Your task to perform on an android device: Open Amazon Image 0: 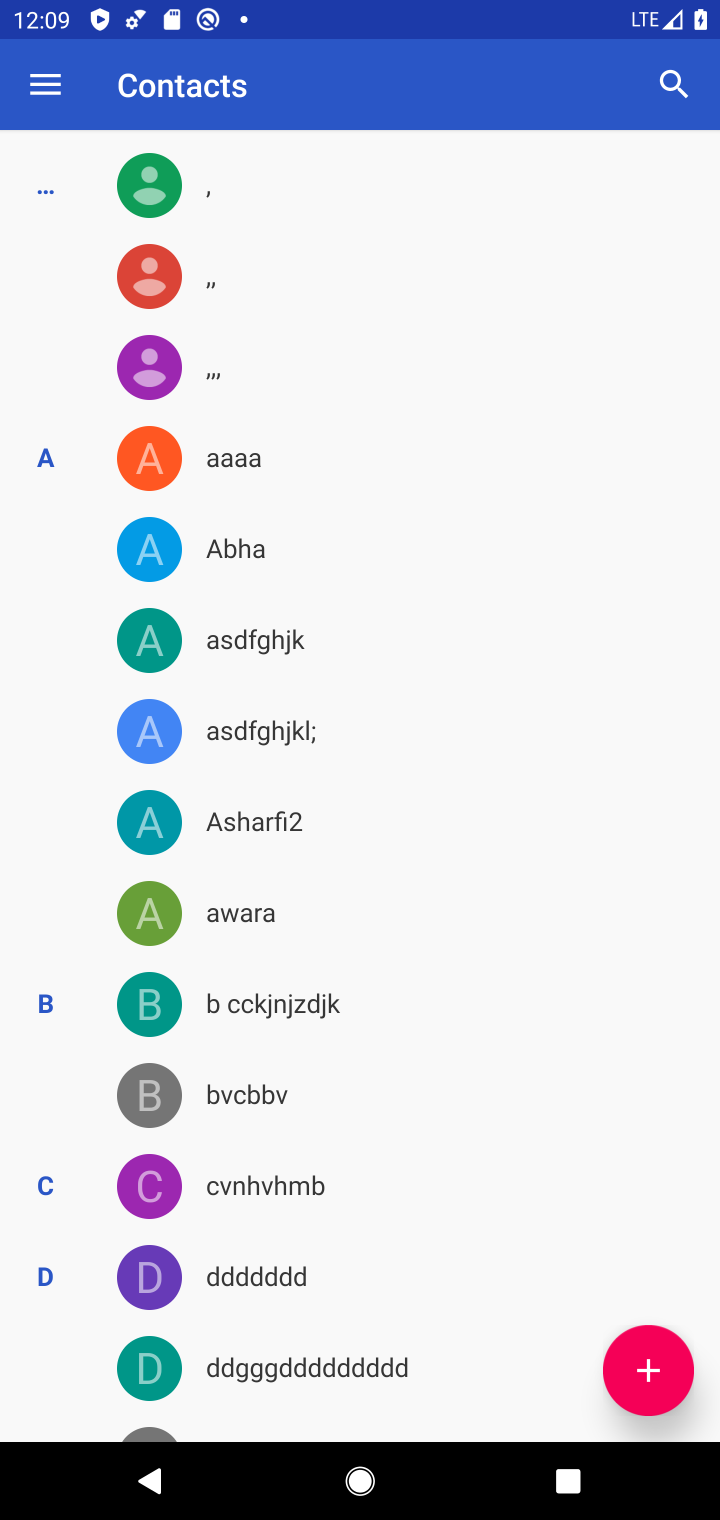
Step 0: press home button
Your task to perform on an android device: Open Amazon Image 1: 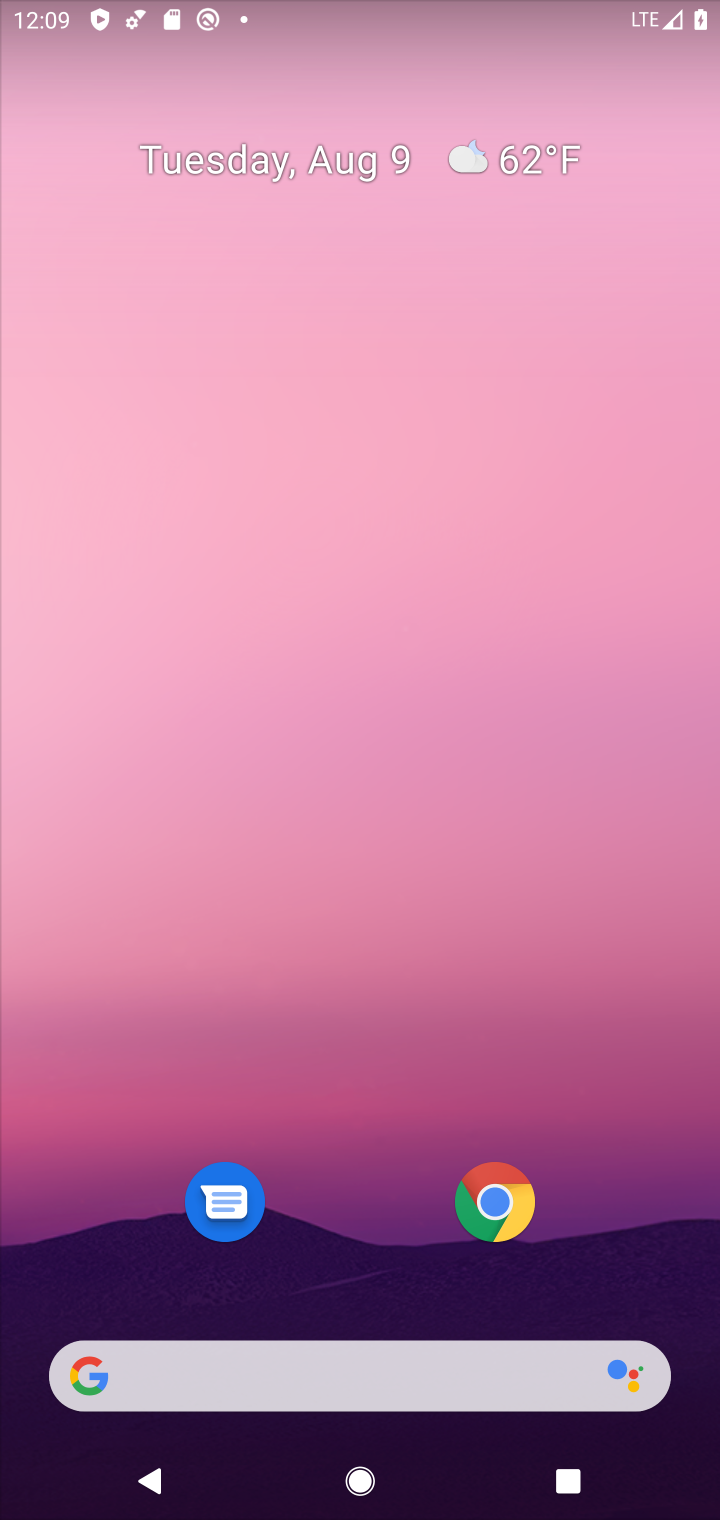
Step 1: drag from (247, 682) to (210, 450)
Your task to perform on an android device: Open Amazon Image 2: 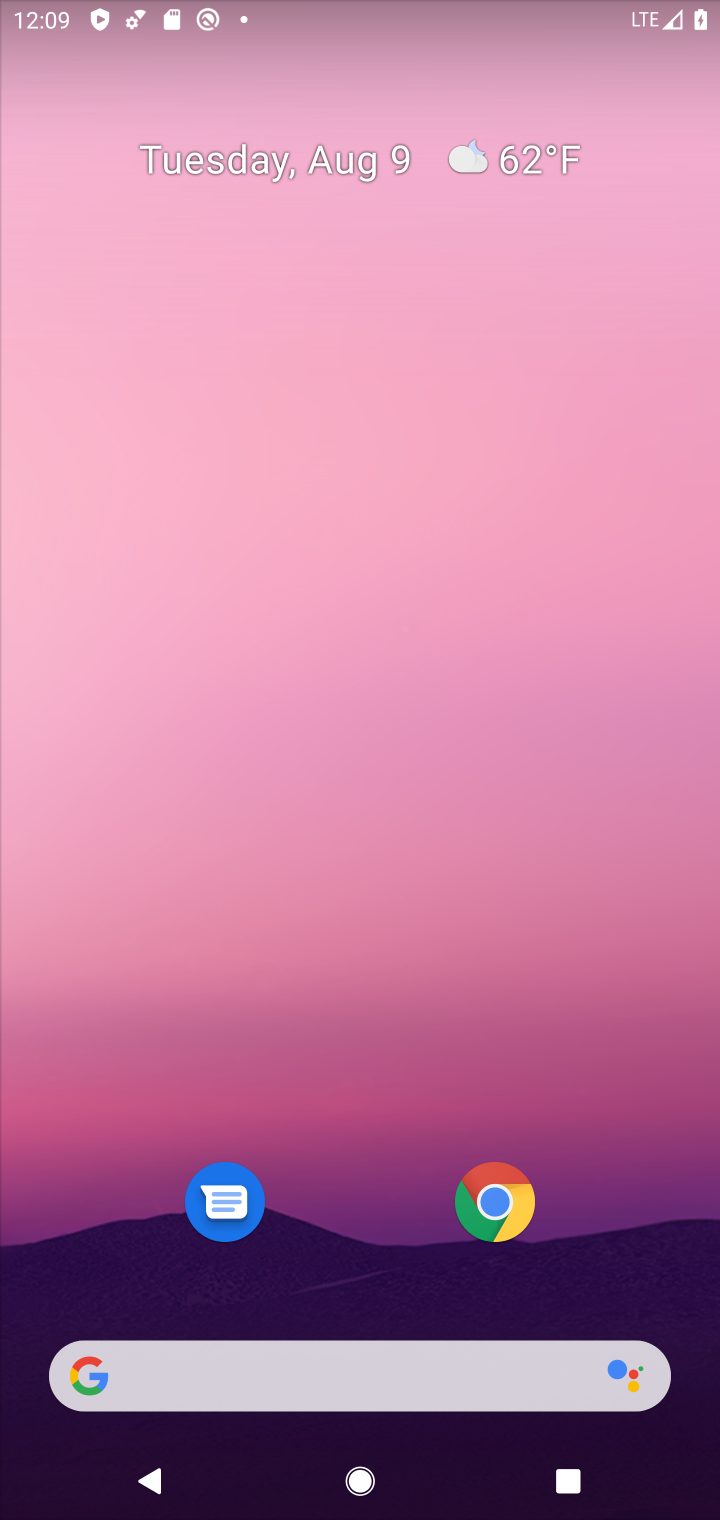
Step 2: drag from (208, 502) to (188, 397)
Your task to perform on an android device: Open Amazon Image 3: 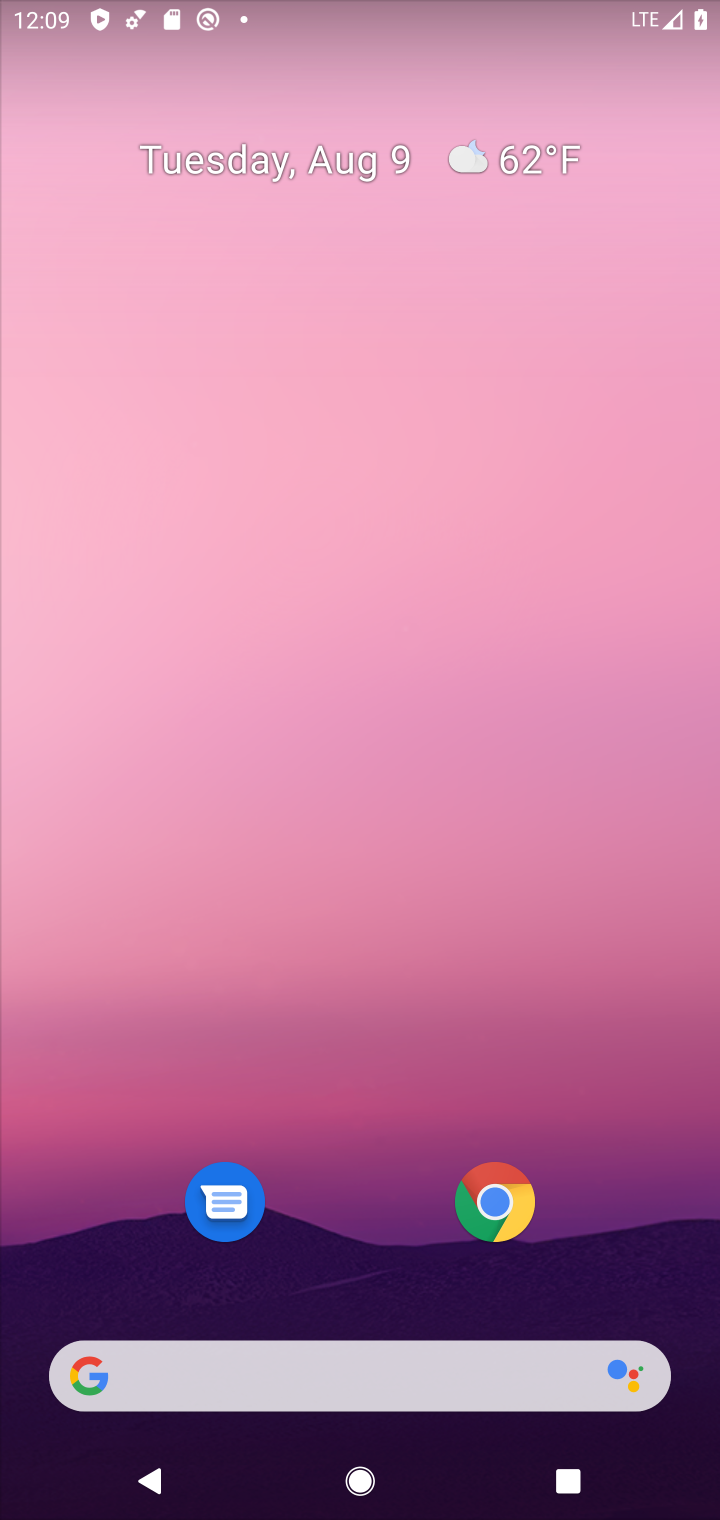
Step 3: click (496, 1212)
Your task to perform on an android device: Open Amazon Image 4: 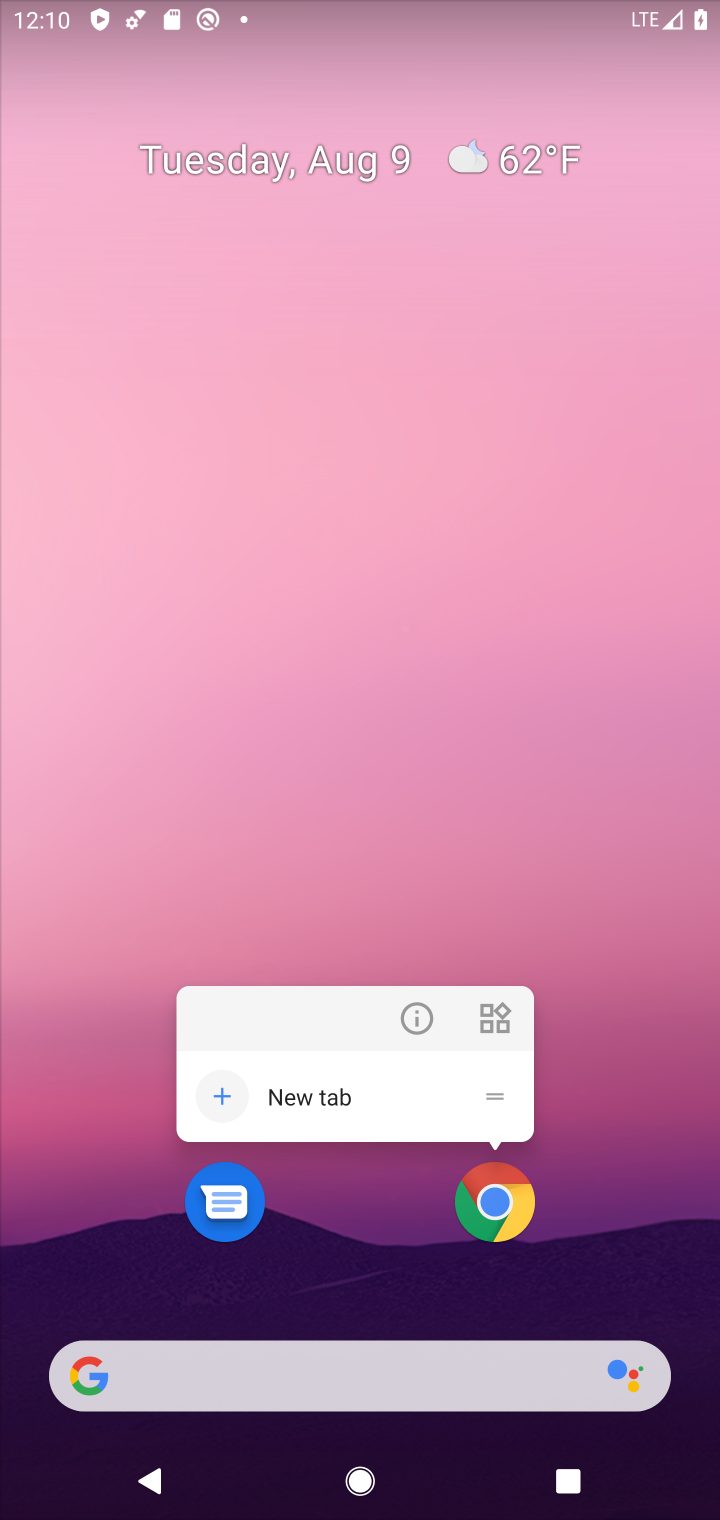
Step 4: click (496, 1212)
Your task to perform on an android device: Open Amazon Image 5: 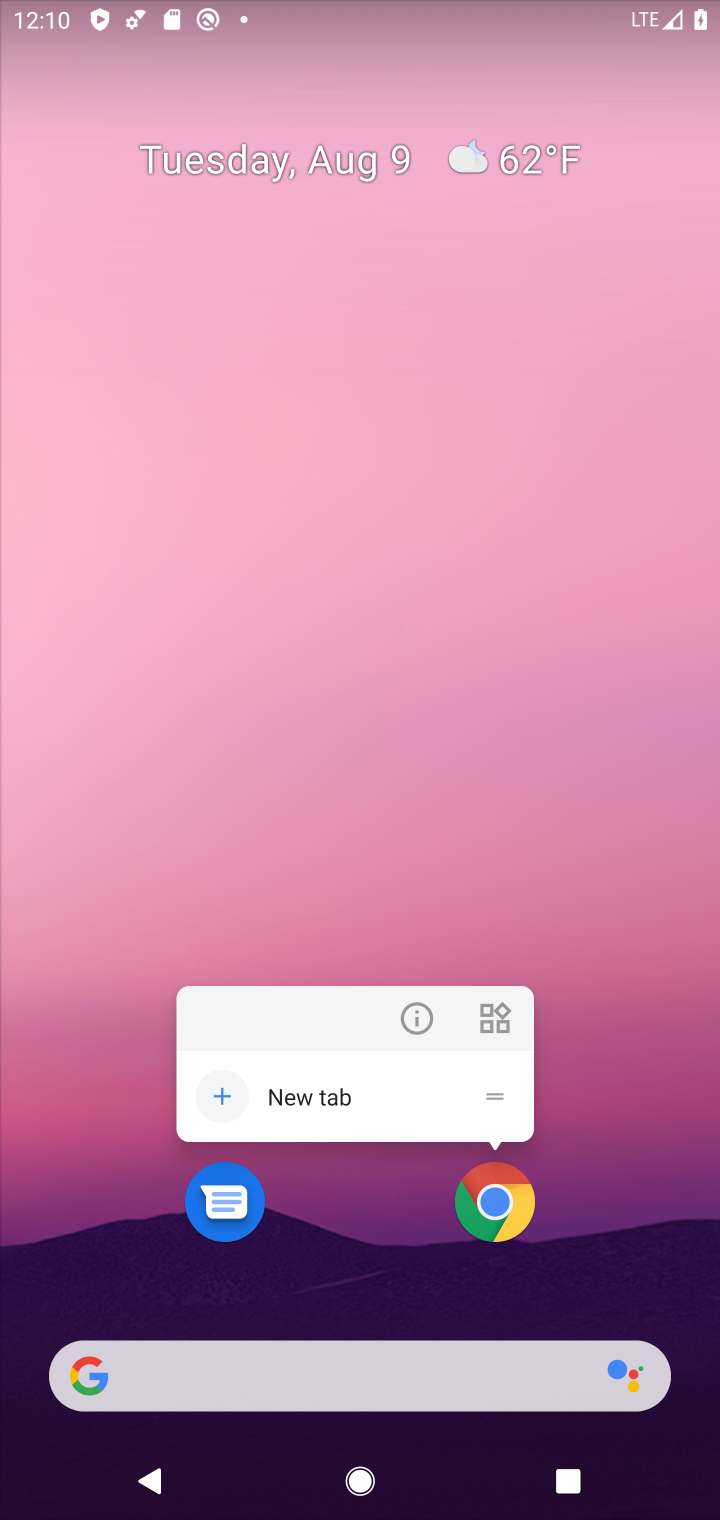
Step 5: click (496, 1212)
Your task to perform on an android device: Open Amazon Image 6: 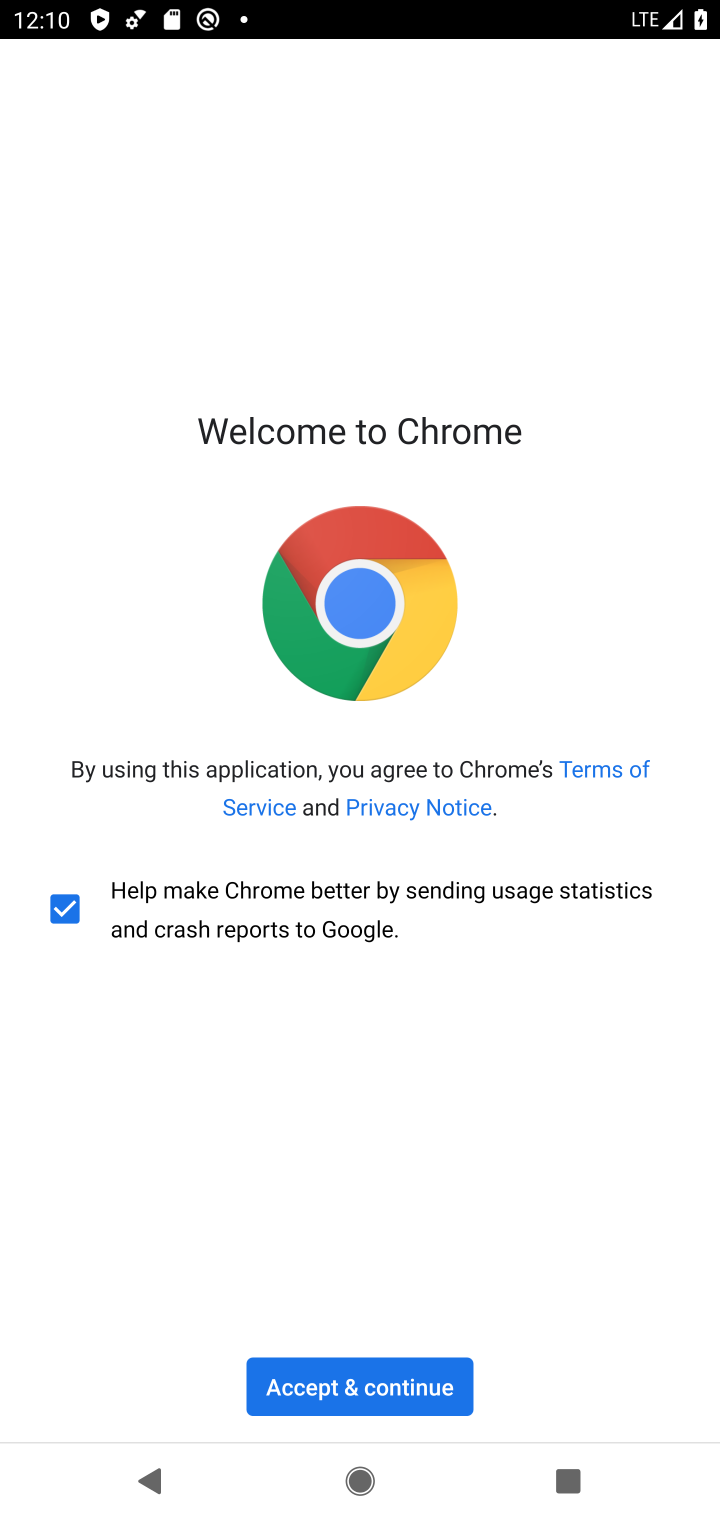
Step 6: click (344, 1371)
Your task to perform on an android device: Open Amazon Image 7: 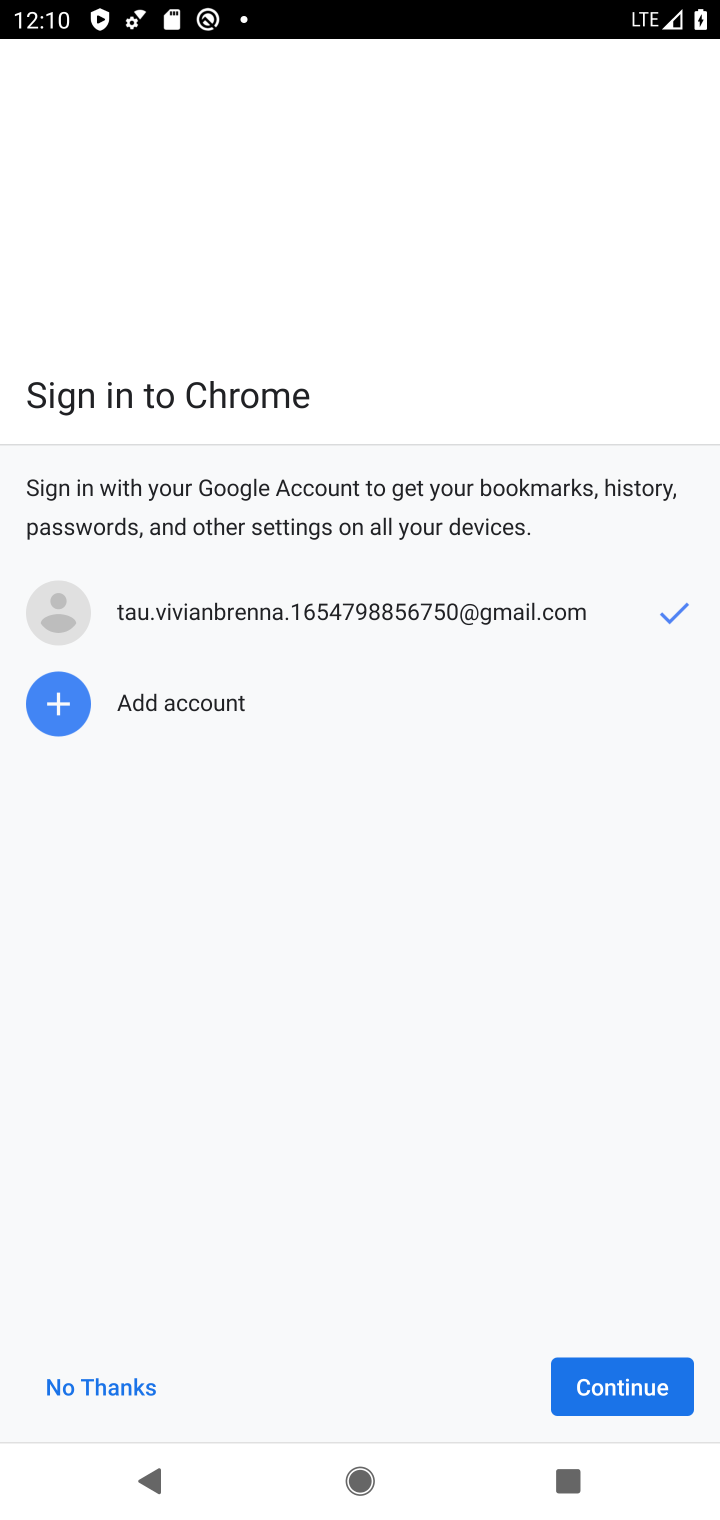
Step 7: click (651, 1383)
Your task to perform on an android device: Open Amazon Image 8: 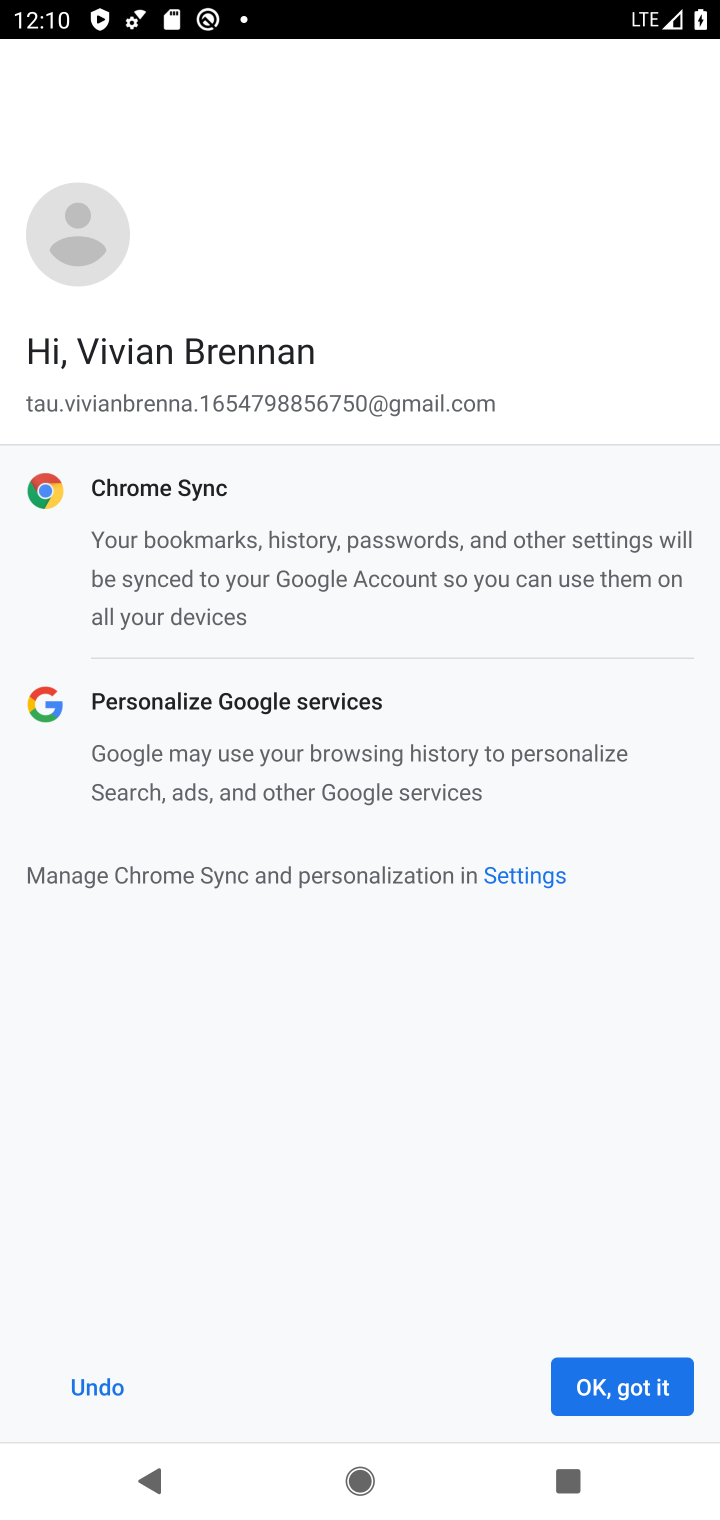
Step 8: click (651, 1383)
Your task to perform on an android device: Open Amazon Image 9: 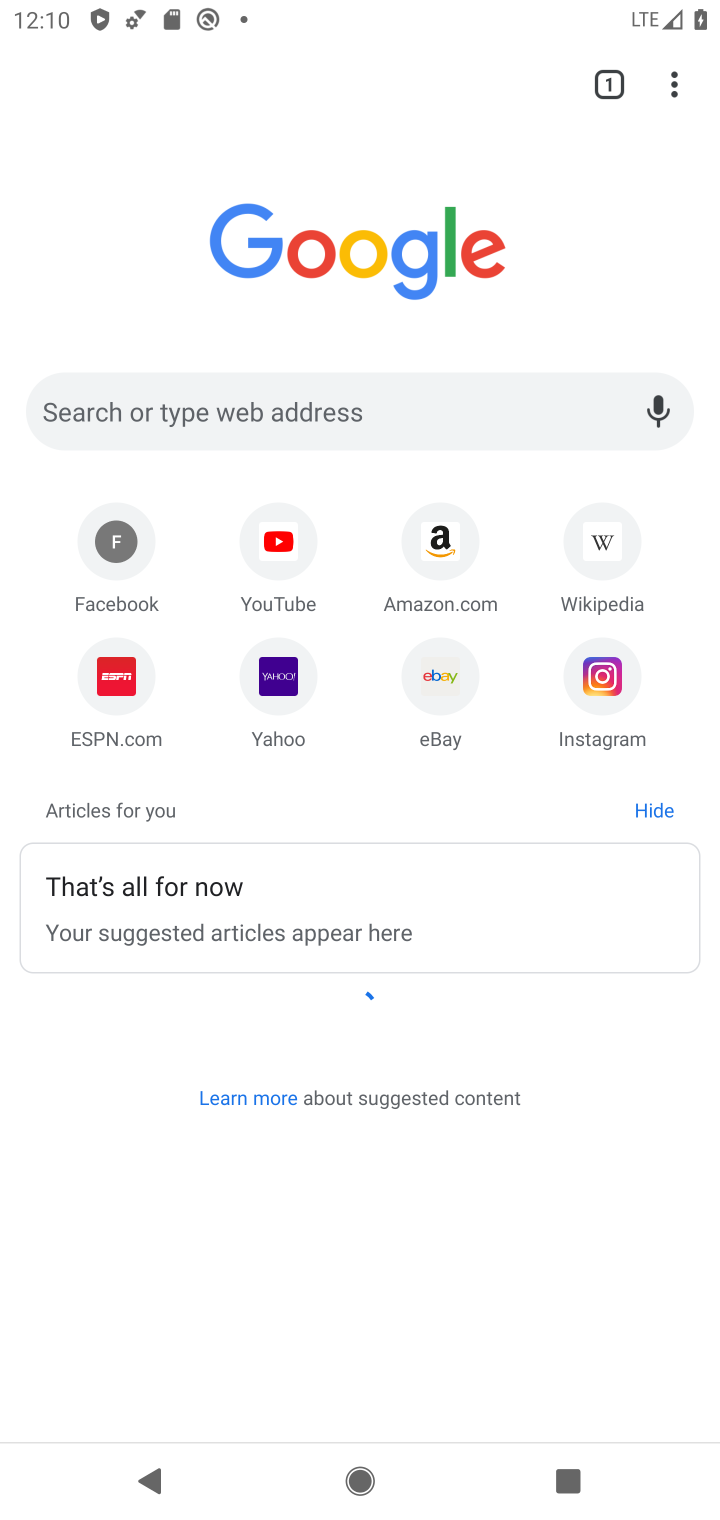
Step 9: click (443, 540)
Your task to perform on an android device: Open Amazon Image 10: 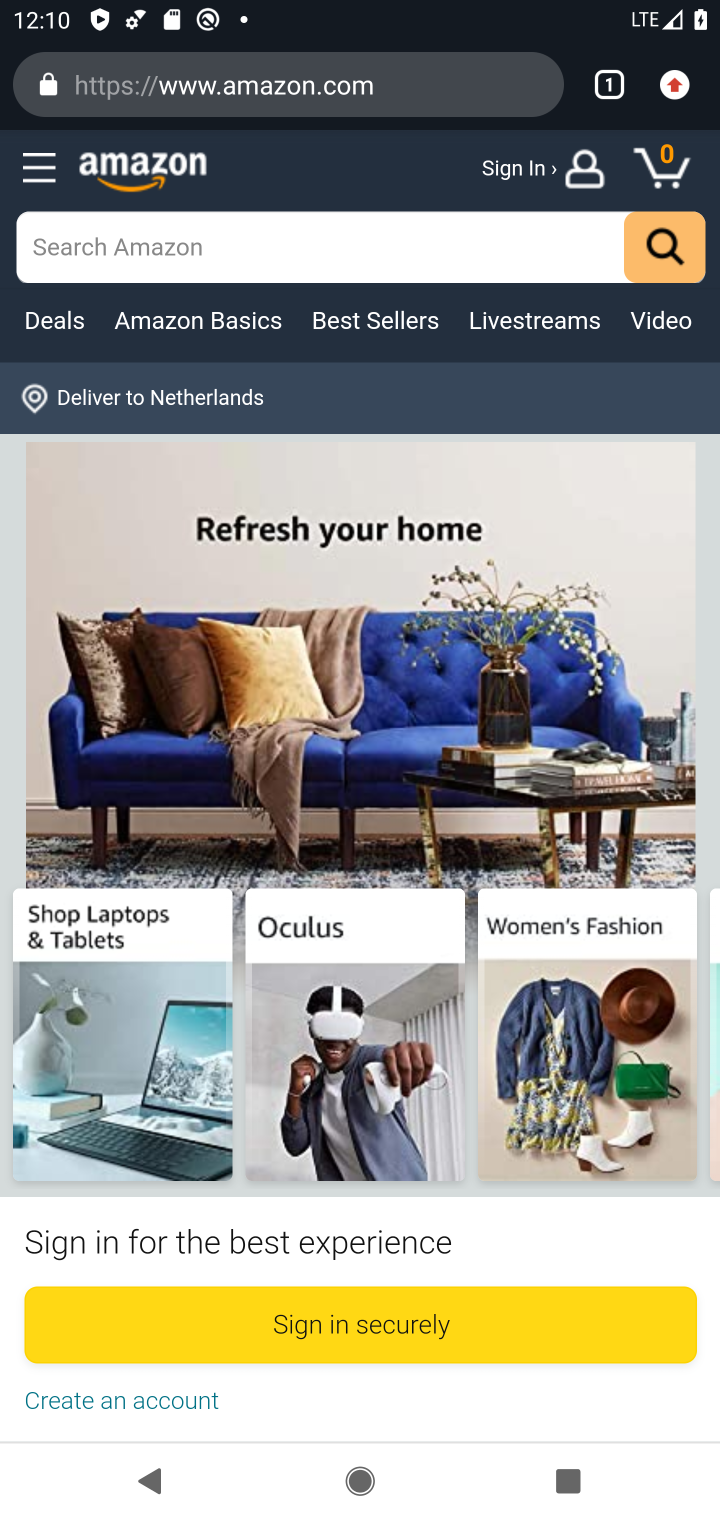
Step 10: task complete